Your task to perform on an android device: turn on wifi Image 0: 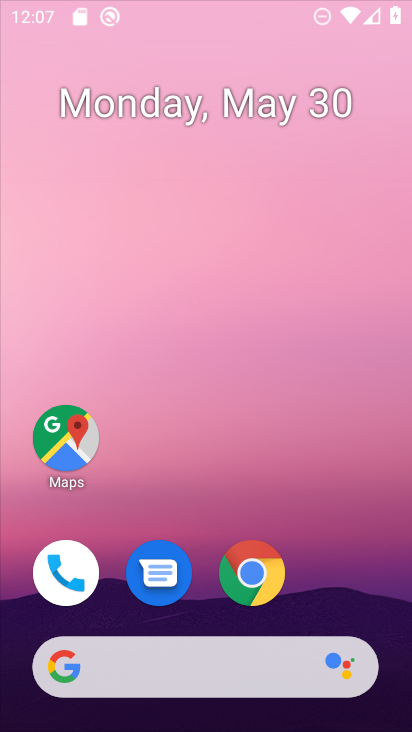
Step 0: press home button
Your task to perform on an android device: turn on wifi Image 1: 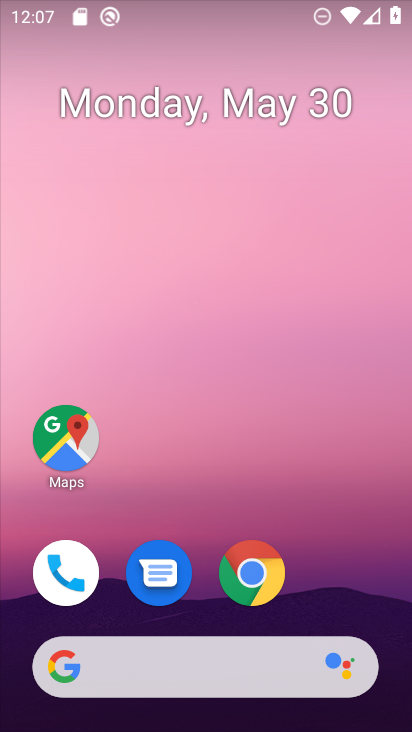
Step 1: task complete